Your task to perform on an android device: Turn on the flashlight Image 0: 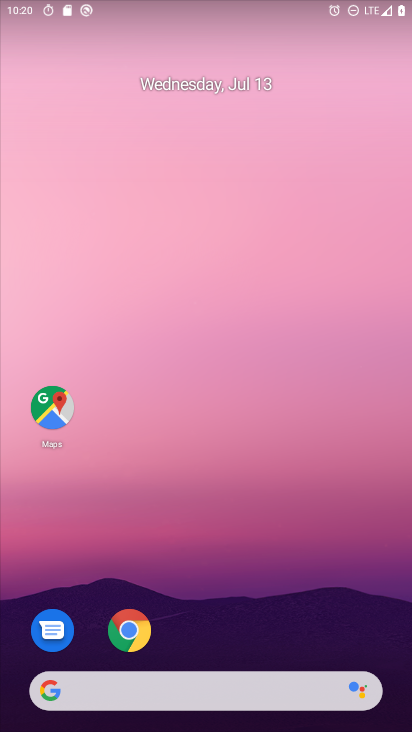
Step 0: drag from (379, 657) to (276, 152)
Your task to perform on an android device: Turn on the flashlight Image 1: 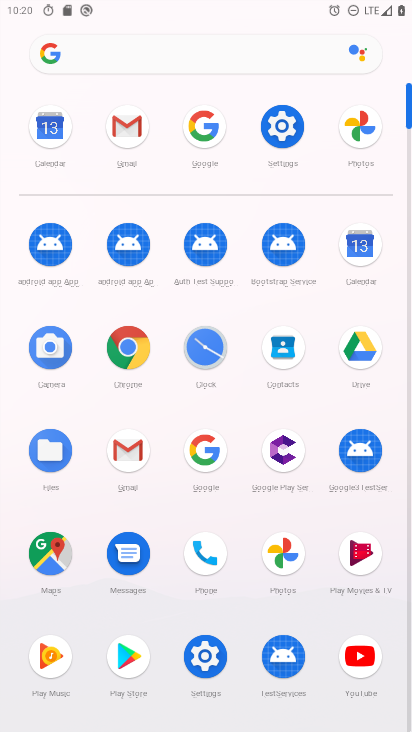
Step 1: click (194, 672)
Your task to perform on an android device: Turn on the flashlight Image 2: 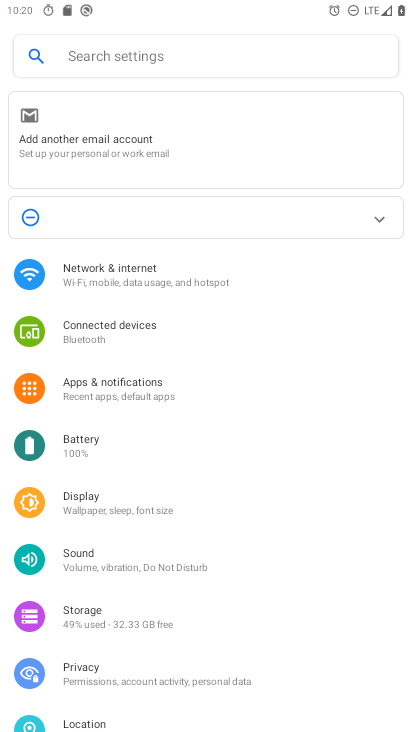
Step 2: task complete